Your task to perform on an android device: Clear the cart on ebay. Search for "razer blade" on ebay, select the first entry, and add it to the cart. Image 0: 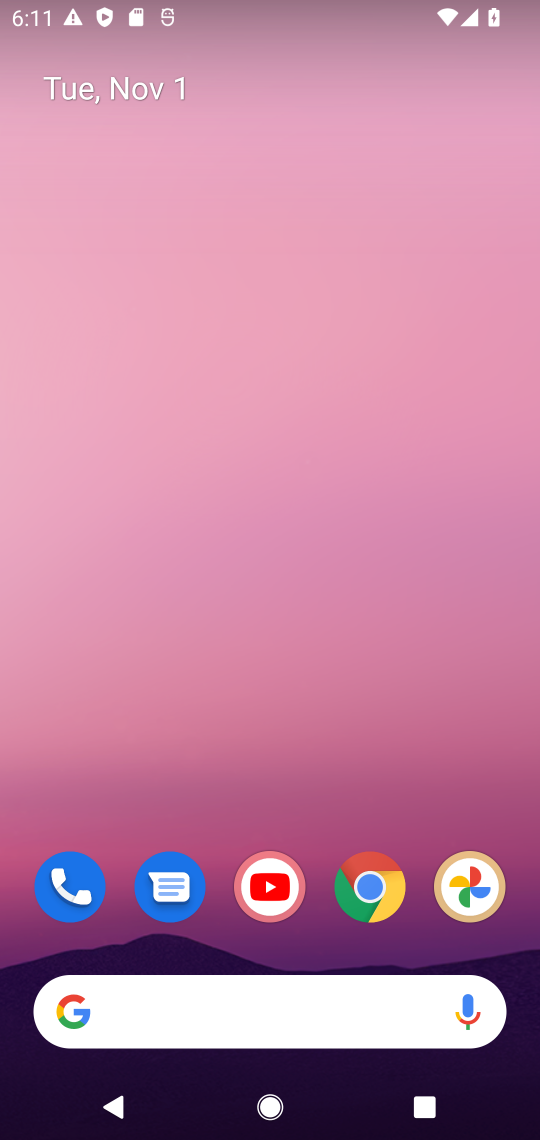
Step 0: drag from (320, 764) to (316, 112)
Your task to perform on an android device: Clear the cart on ebay. Search for "razer blade" on ebay, select the first entry, and add it to the cart. Image 1: 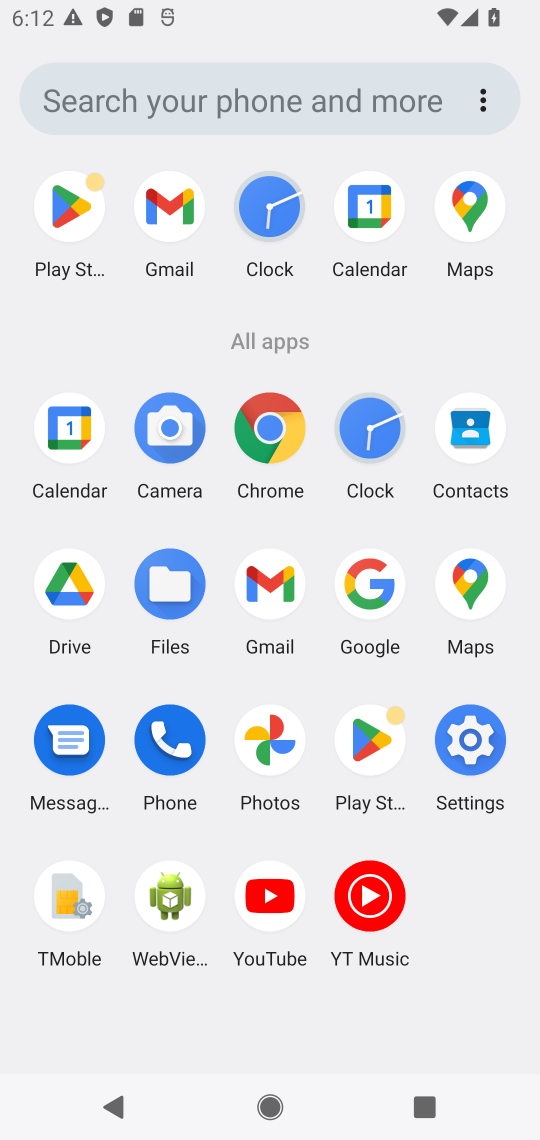
Step 1: click (275, 425)
Your task to perform on an android device: Clear the cart on ebay. Search for "razer blade" on ebay, select the first entry, and add it to the cart. Image 2: 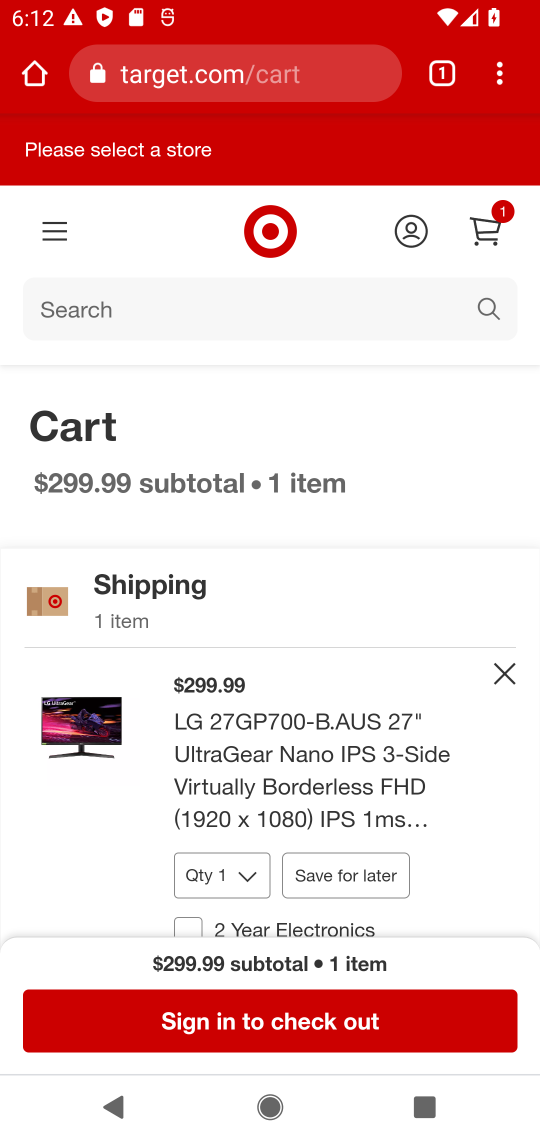
Step 2: click (171, 67)
Your task to perform on an android device: Clear the cart on ebay. Search for "razer blade" on ebay, select the first entry, and add it to the cart. Image 3: 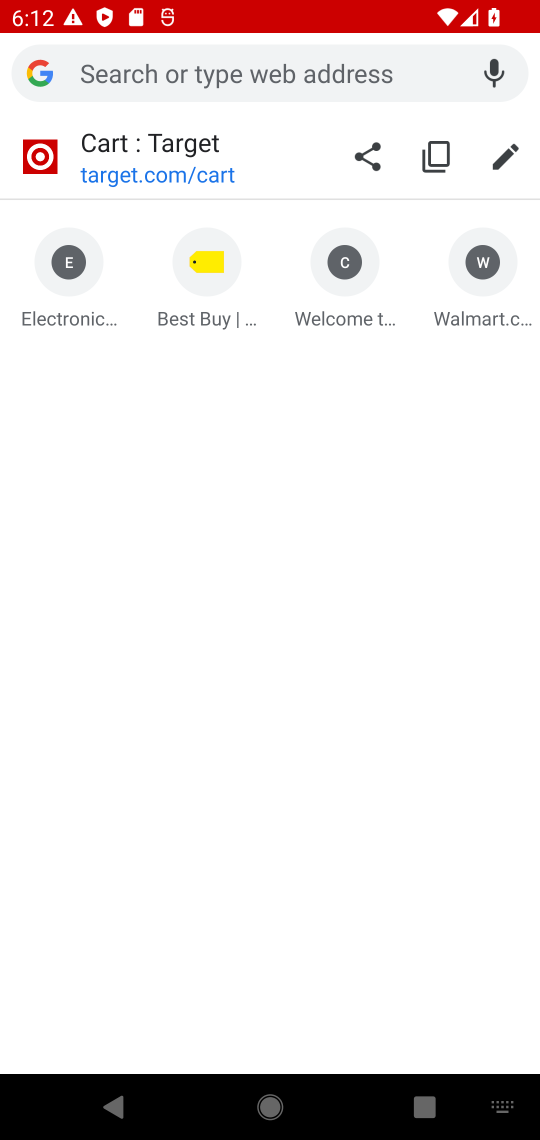
Step 3: type "ebay"
Your task to perform on an android device: Clear the cart on ebay. Search for "razer blade" on ebay, select the first entry, and add it to the cart. Image 4: 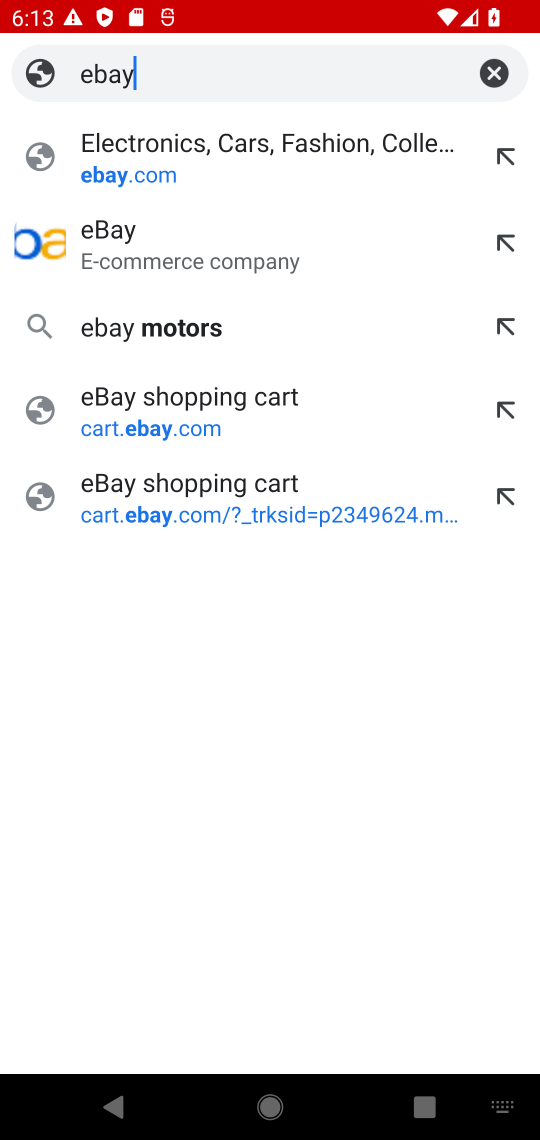
Step 4: click (229, 172)
Your task to perform on an android device: Clear the cart on ebay. Search for "razer blade" on ebay, select the first entry, and add it to the cart. Image 5: 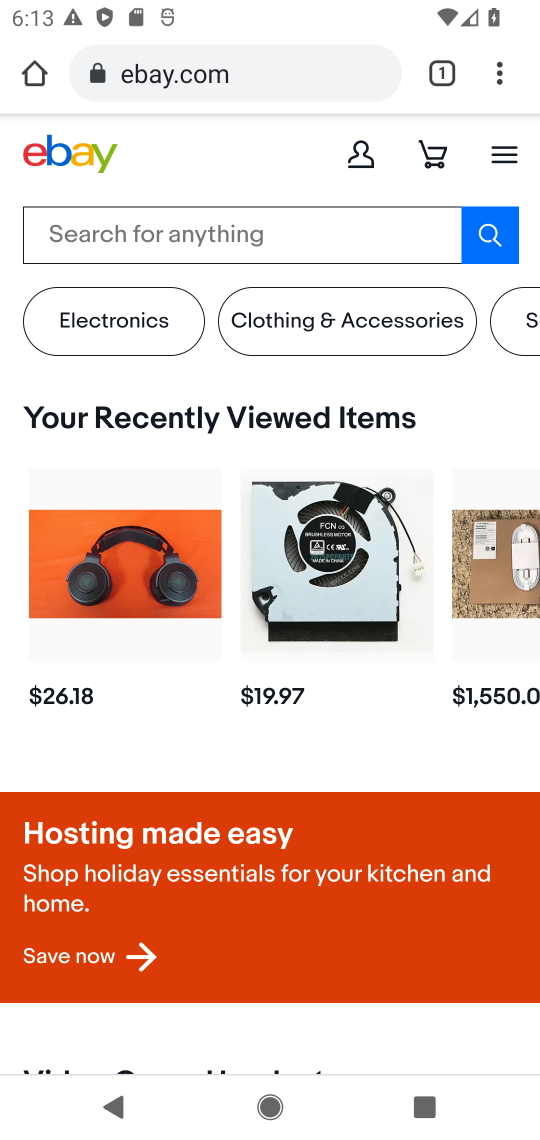
Step 5: click (168, 232)
Your task to perform on an android device: Clear the cart on ebay. Search for "razer blade" on ebay, select the first entry, and add it to the cart. Image 6: 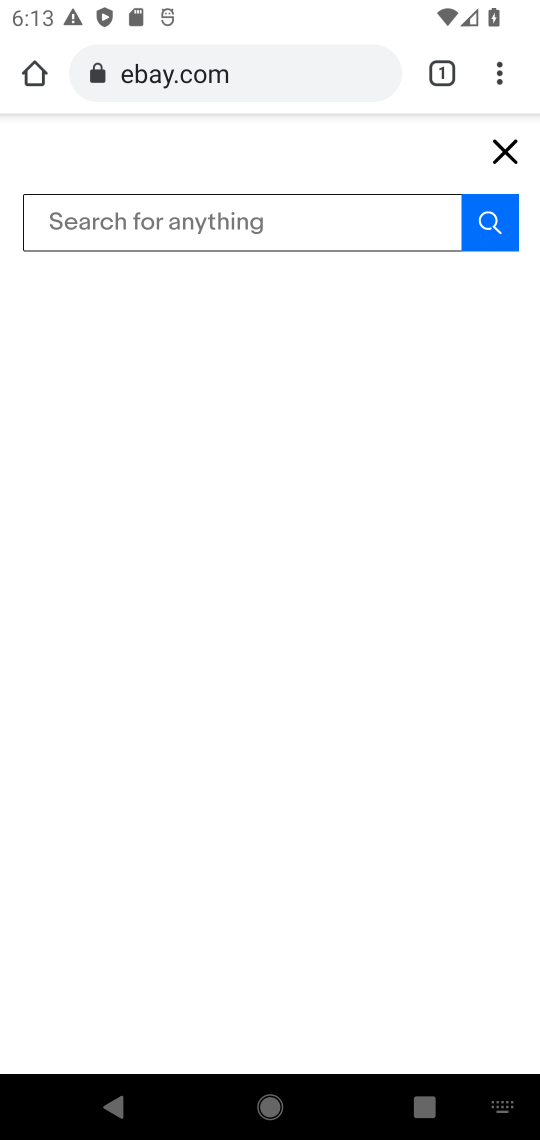
Step 6: type "razer blade"
Your task to perform on an android device: Clear the cart on ebay. Search for "razer blade" on ebay, select the first entry, and add it to the cart. Image 7: 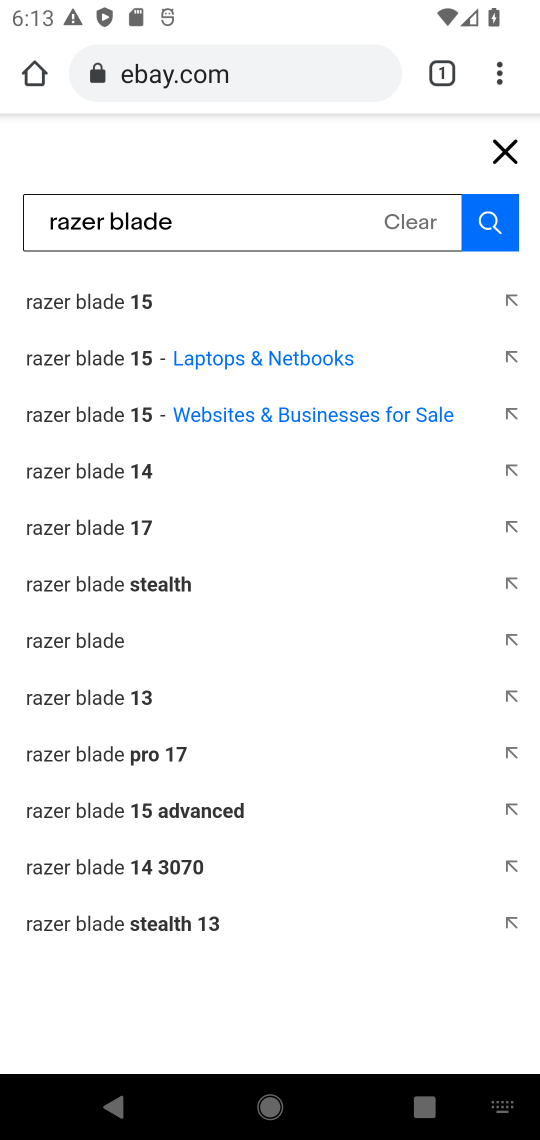
Step 7: click (165, 300)
Your task to perform on an android device: Clear the cart on ebay. Search for "razer blade" on ebay, select the first entry, and add it to the cart. Image 8: 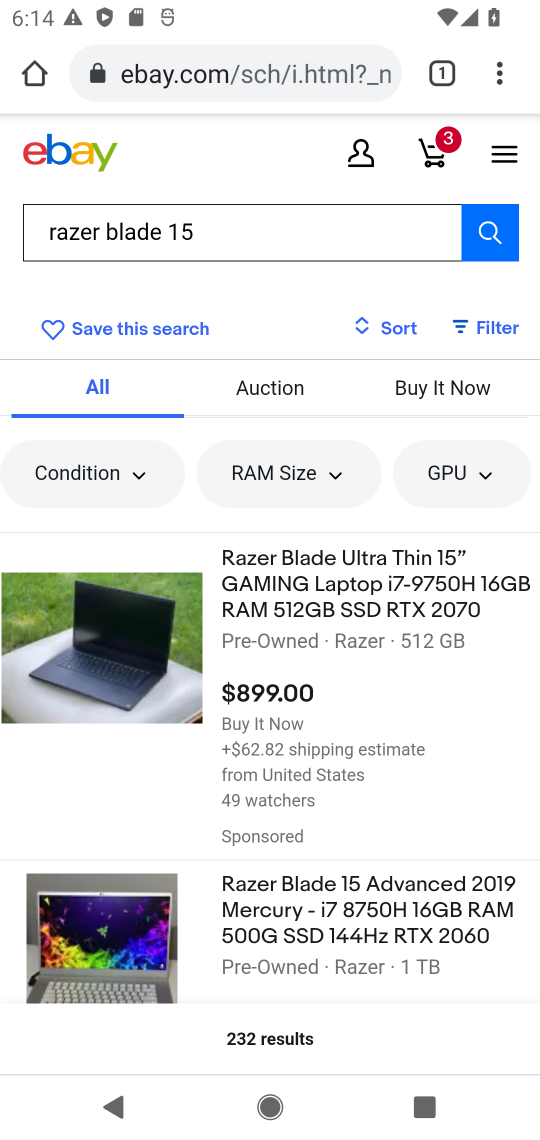
Step 8: click (283, 582)
Your task to perform on an android device: Clear the cart on ebay. Search for "razer blade" on ebay, select the first entry, and add it to the cart. Image 9: 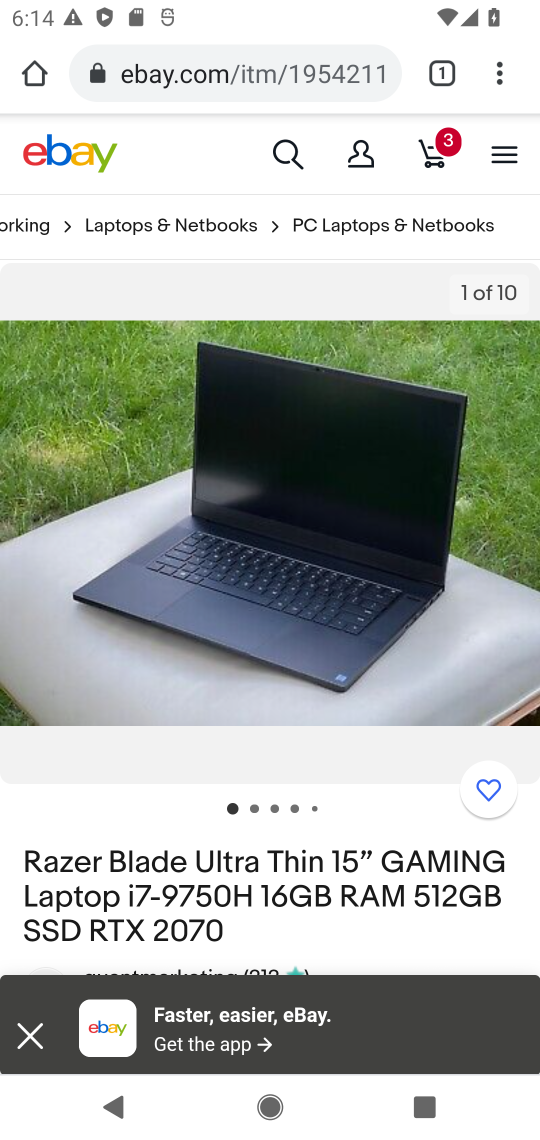
Step 9: drag from (323, 930) to (278, 202)
Your task to perform on an android device: Clear the cart on ebay. Search for "razer blade" on ebay, select the first entry, and add it to the cart. Image 10: 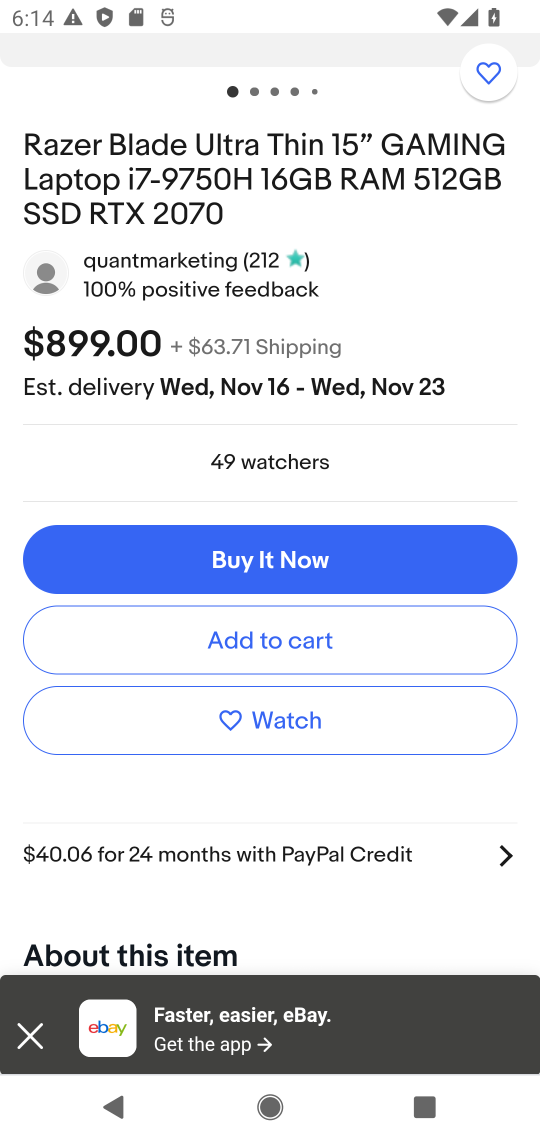
Step 10: click (271, 648)
Your task to perform on an android device: Clear the cart on ebay. Search for "razer blade" on ebay, select the first entry, and add it to the cart. Image 11: 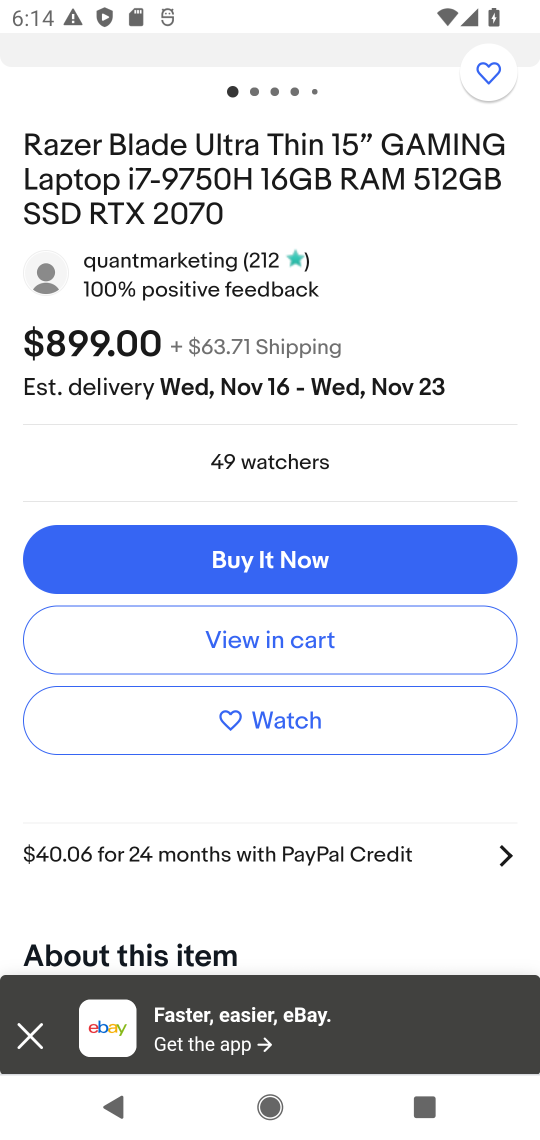
Step 11: click (274, 633)
Your task to perform on an android device: Clear the cart on ebay. Search for "razer blade" on ebay, select the first entry, and add it to the cart. Image 12: 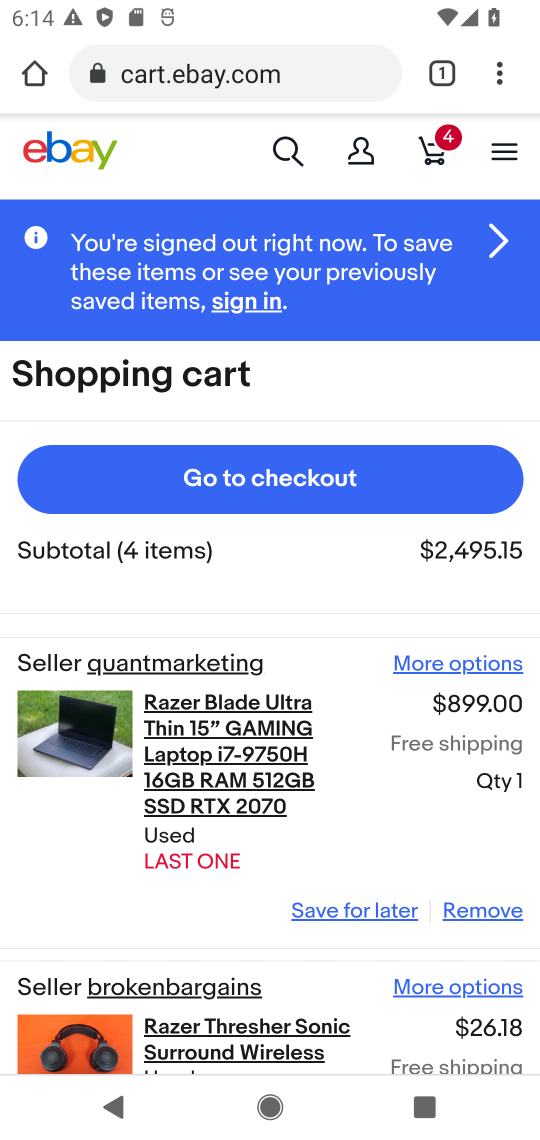
Step 12: task complete